Your task to perform on an android device: snooze an email in the gmail app Image 0: 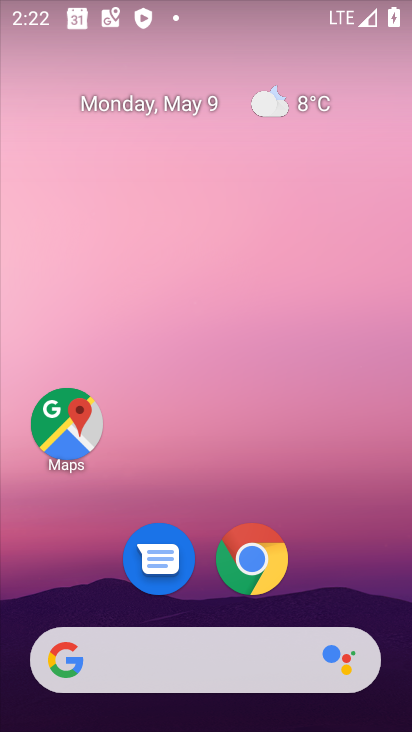
Step 0: drag from (340, 549) to (192, 53)
Your task to perform on an android device: snooze an email in the gmail app Image 1: 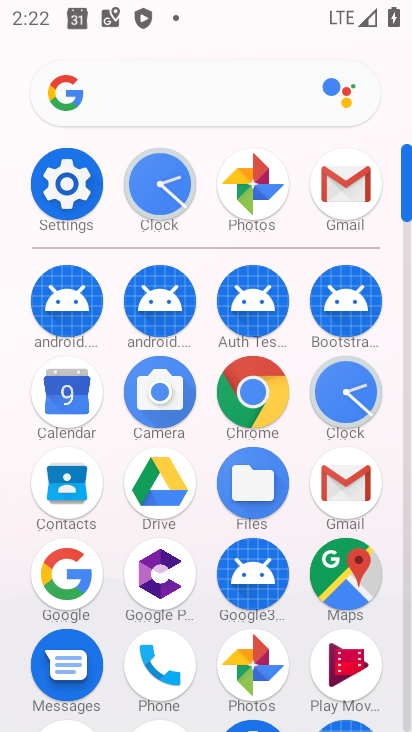
Step 1: click (341, 191)
Your task to perform on an android device: snooze an email in the gmail app Image 2: 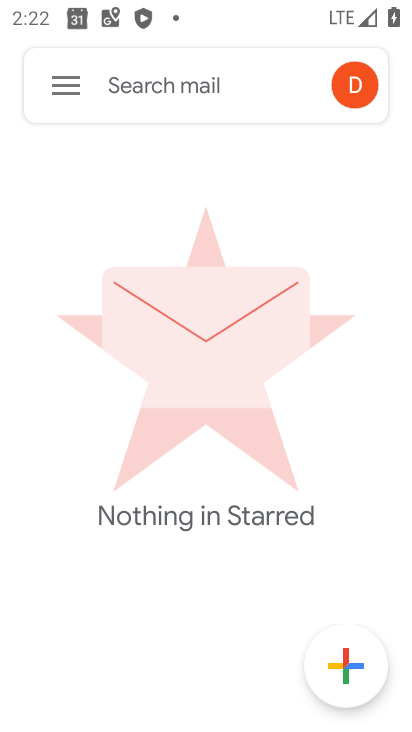
Step 2: click (59, 80)
Your task to perform on an android device: snooze an email in the gmail app Image 3: 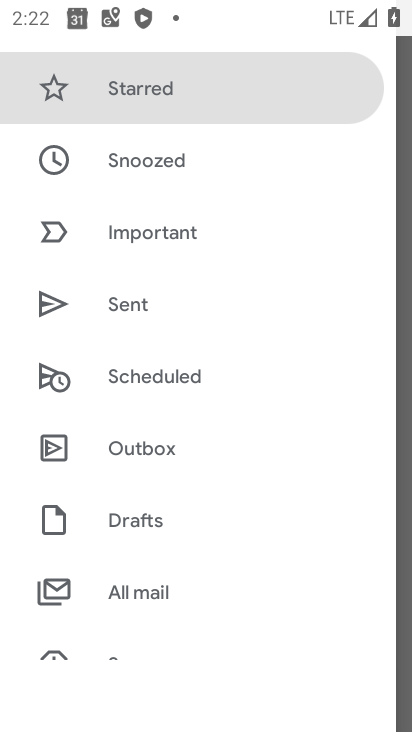
Step 3: click (133, 588)
Your task to perform on an android device: snooze an email in the gmail app Image 4: 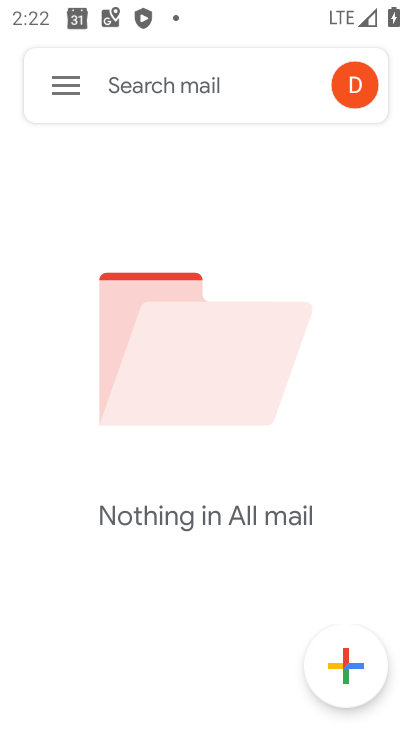
Step 4: task complete